Your task to perform on an android device: move an email to a new category in the gmail app Image 0: 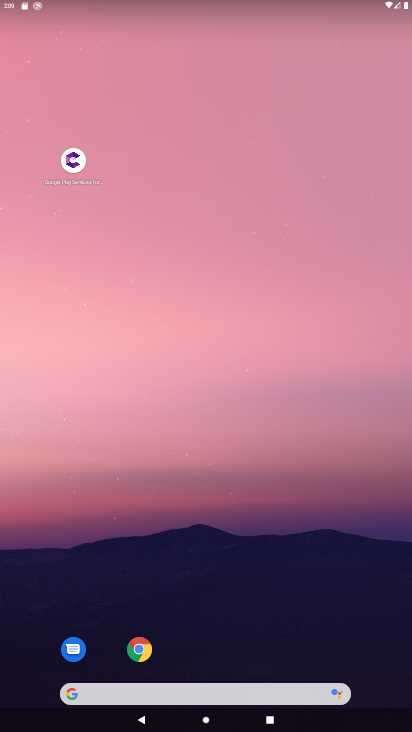
Step 0: drag from (230, 642) to (212, 266)
Your task to perform on an android device: move an email to a new category in the gmail app Image 1: 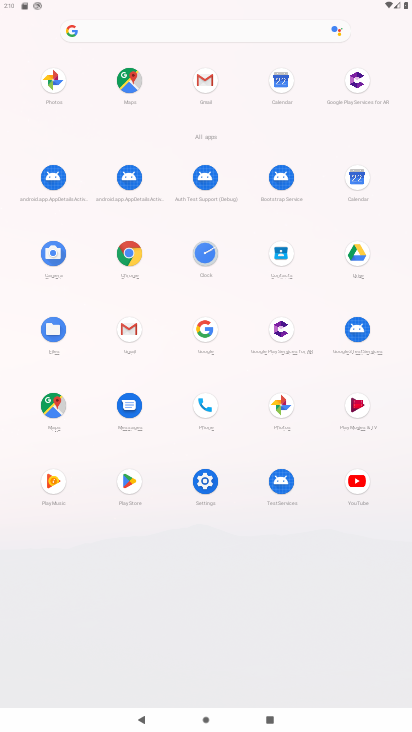
Step 1: click (130, 330)
Your task to perform on an android device: move an email to a new category in the gmail app Image 2: 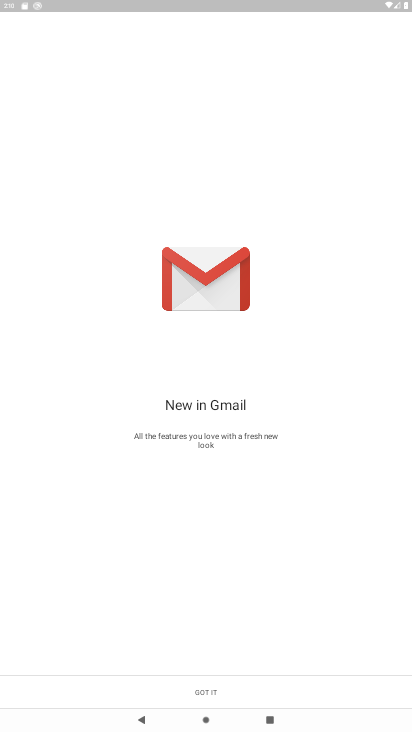
Step 2: click (192, 692)
Your task to perform on an android device: move an email to a new category in the gmail app Image 3: 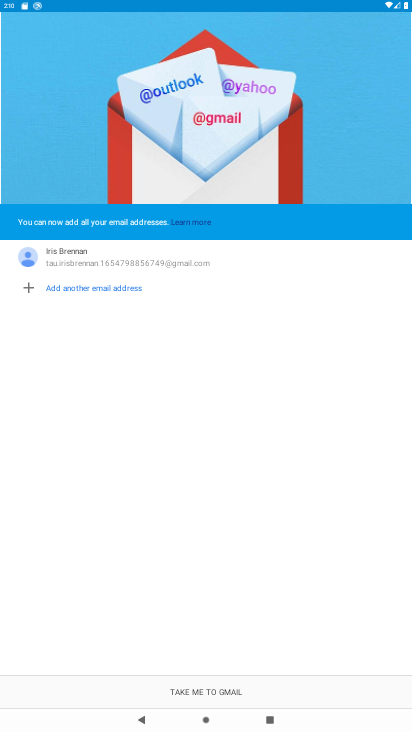
Step 3: click (191, 693)
Your task to perform on an android device: move an email to a new category in the gmail app Image 4: 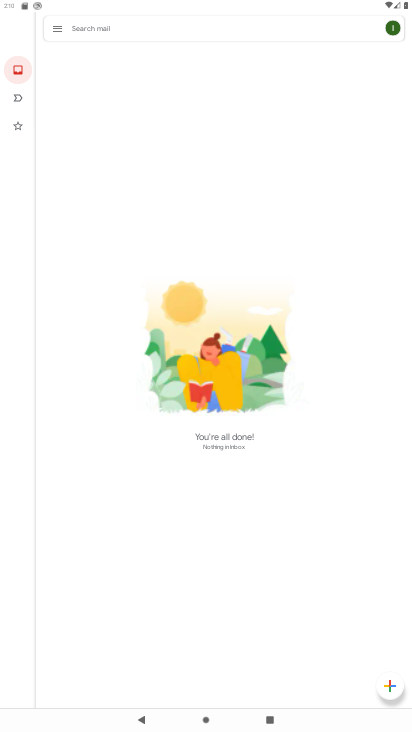
Step 4: task complete